Your task to perform on an android device: change text size in settings app Image 0: 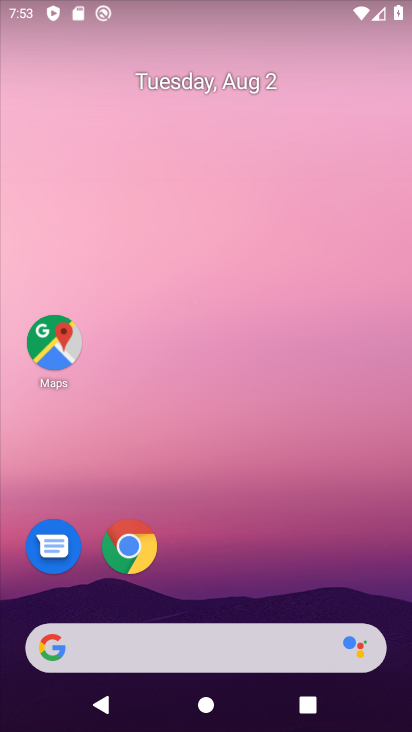
Step 0: drag from (193, 624) to (153, 277)
Your task to perform on an android device: change text size in settings app Image 1: 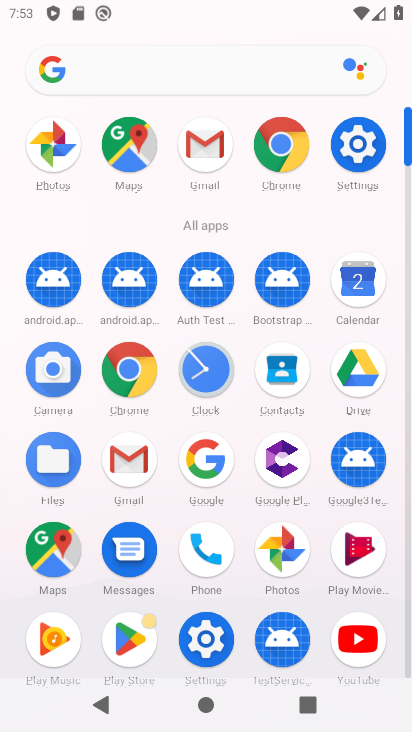
Step 1: click (228, 632)
Your task to perform on an android device: change text size in settings app Image 2: 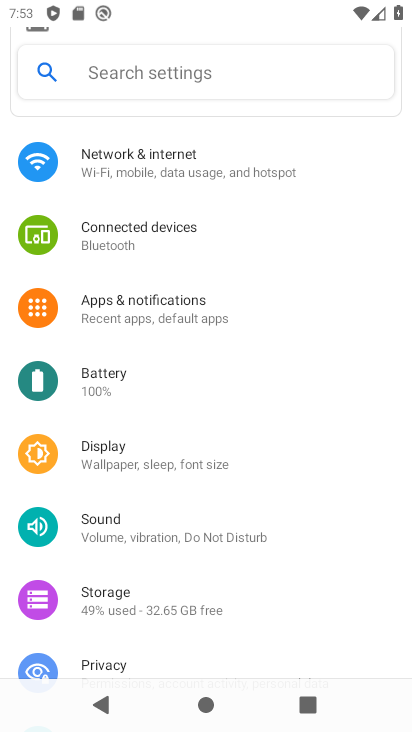
Step 2: click (129, 448)
Your task to perform on an android device: change text size in settings app Image 3: 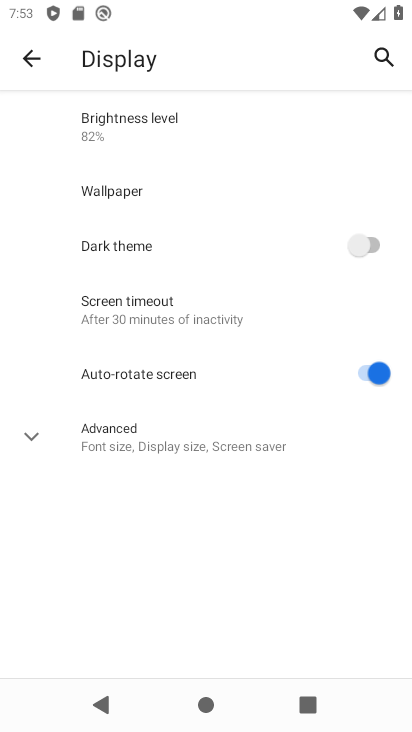
Step 3: click (110, 432)
Your task to perform on an android device: change text size in settings app Image 4: 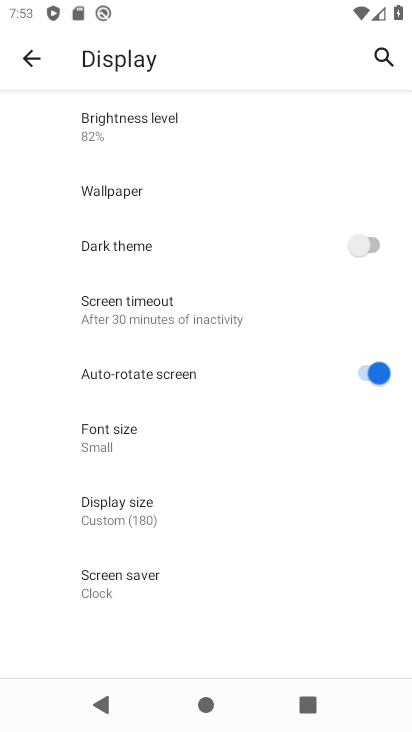
Step 4: click (117, 440)
Your task to perform on an android device: change text size in settings app Image 5: 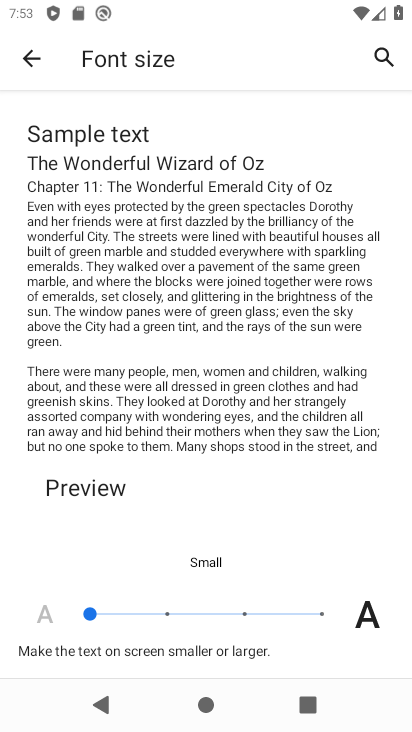
Step 5: click (241, 609)
Your task to perform on an android device: change text size in settings app Image 6: 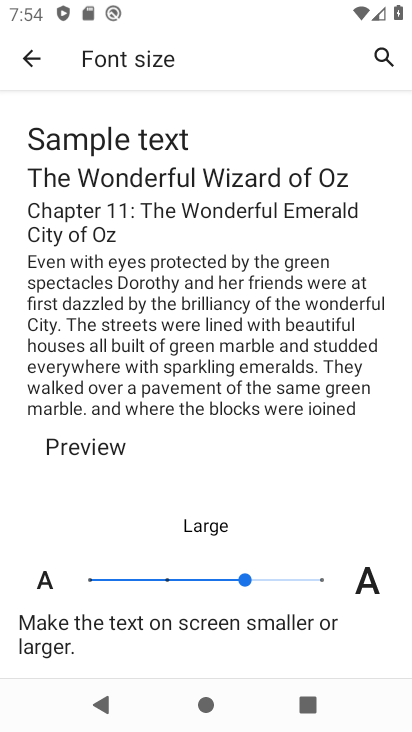
Step 6: task complete